Your task to perform on an android device: Go to Google Image 0: 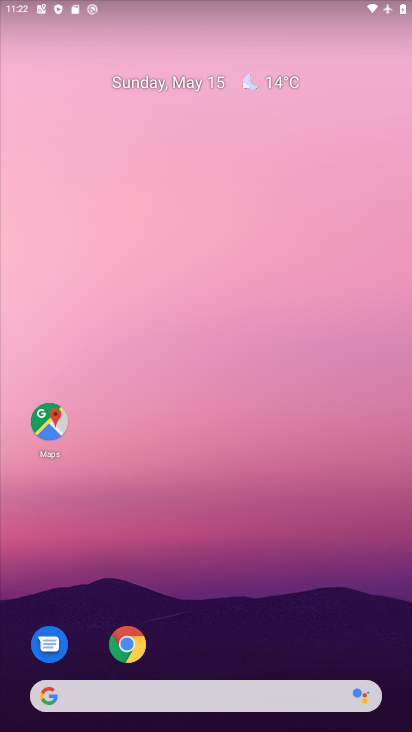
Step 0: drag from (248, 640) to (160, 100)
Your task to perform on an android device: Go to Google Image 1: 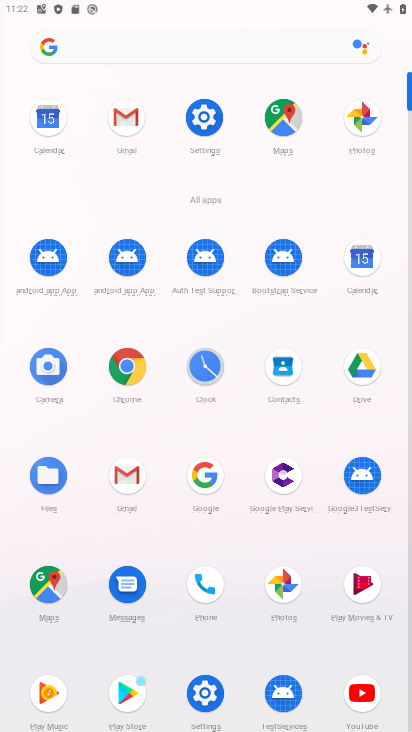
Step 1: click (193, 480)
Your task to perform on an android device: Go to Google Image 2: 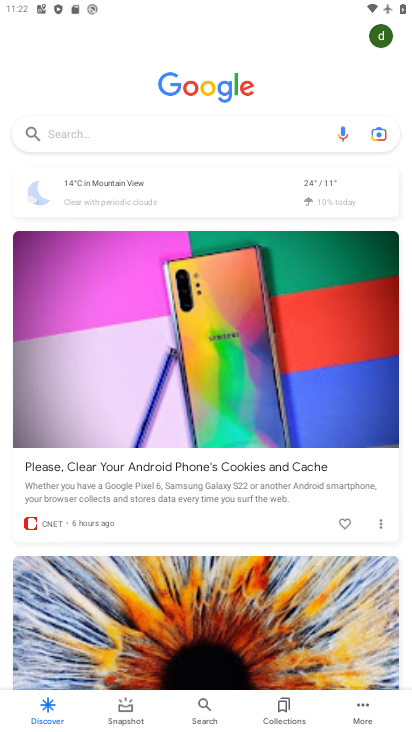
Step 2: task complete